Your task to perform on an android device: check android version Image 0: 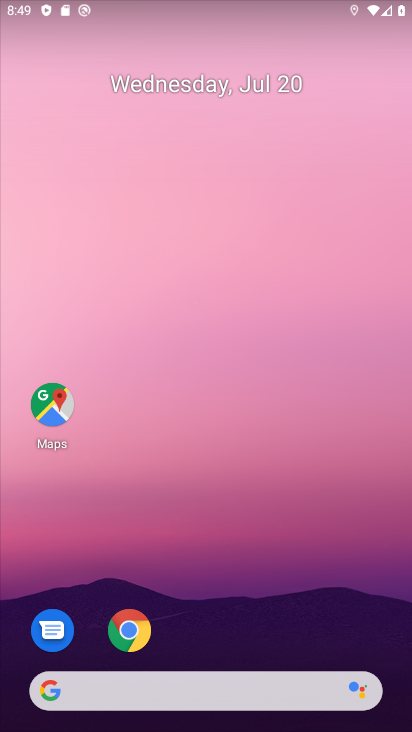
Step 0: drag from (204, 682) to (205, 154)
Your task to perform on an android device: check android version Image 1: 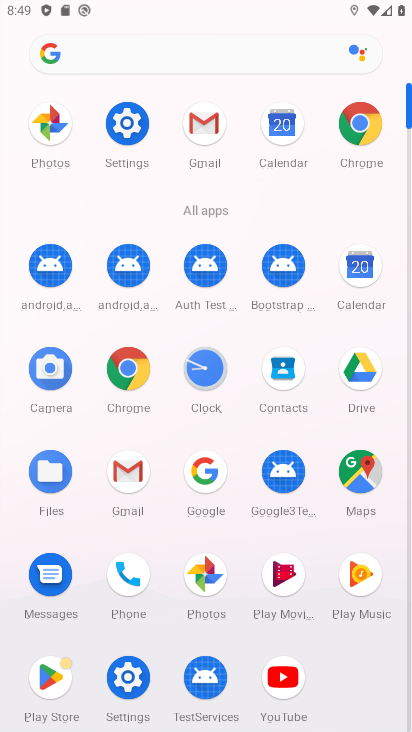
Step 1: click (125, 665)
Your task to perform on an android device: check android version Image 2: 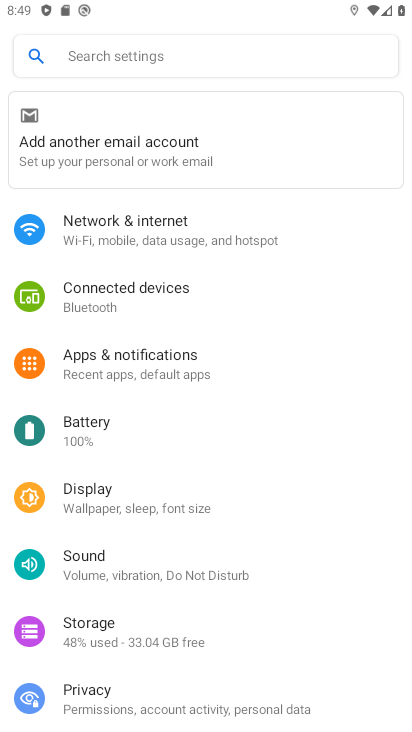
Step 2: drag from (242, 695) to (193, 140)
Your task to perform on an android device: check android version Image 3: 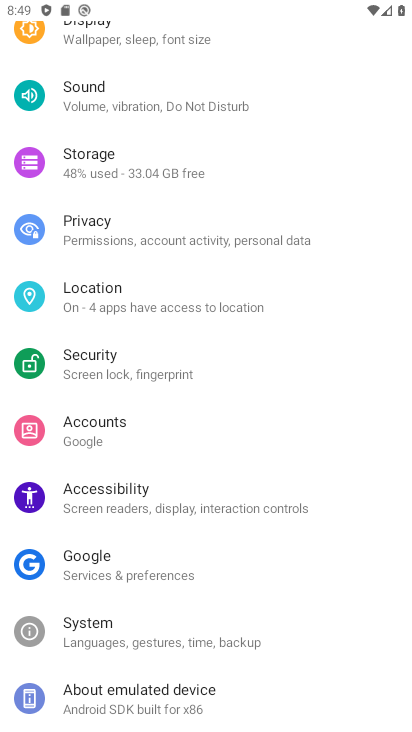
Step 3: click (158, 700)
Your task to perform on an android device: check android version Image 4: 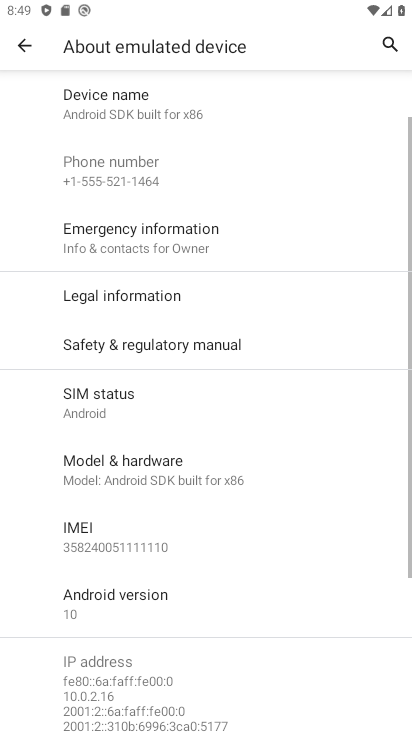
Step 4: click (165, 611)
Your task to perform on an android device: check android version Image 5: 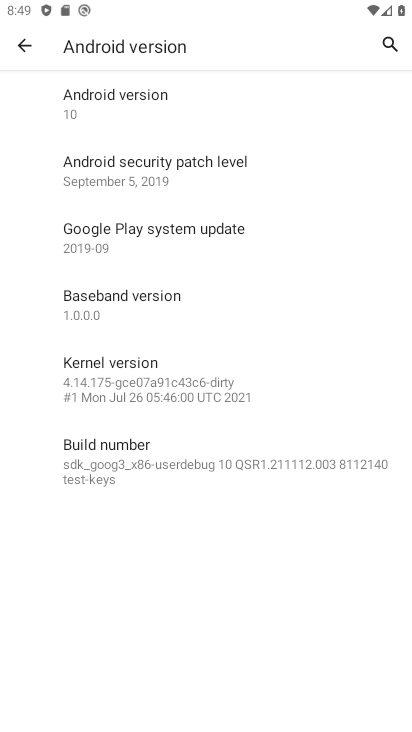
Step 5: task complete